Your task to perform on an android device: Open eBay Image 0: 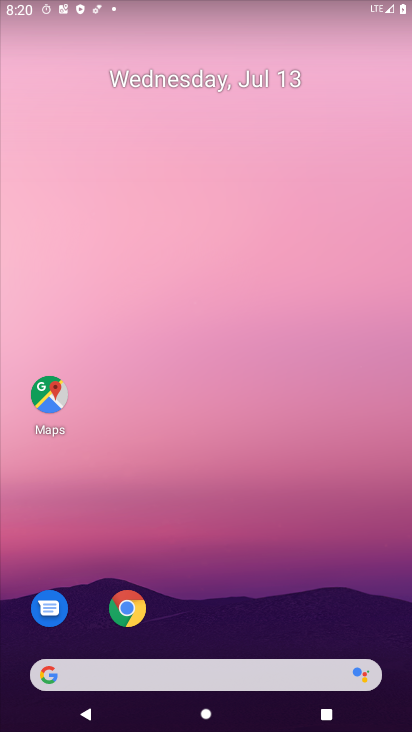
Step 0: drag from (301, 314) to (297, 28)
Your task to perform on an android device: Open eBay Image 1: 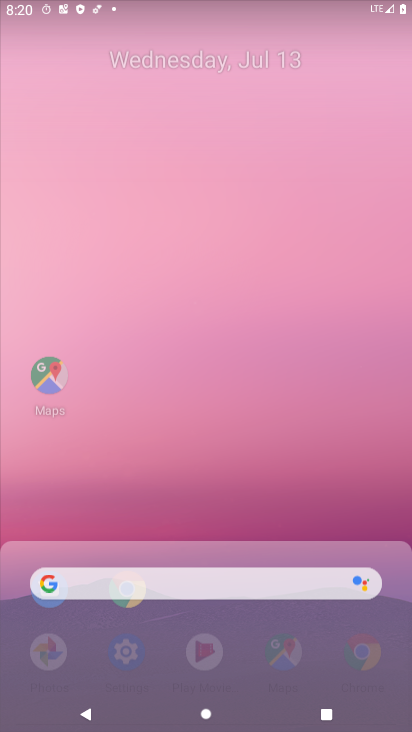
Step 1: drag from (263, 96) to (224, 184)
Your task to perform on an android device: Open eBay Image 2: 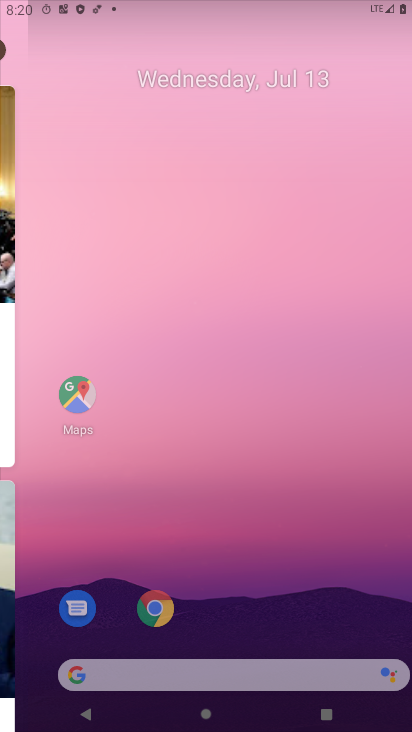
Step 2: click (219, 137)
Your task to perform on an android device: Open eBay Image 3: 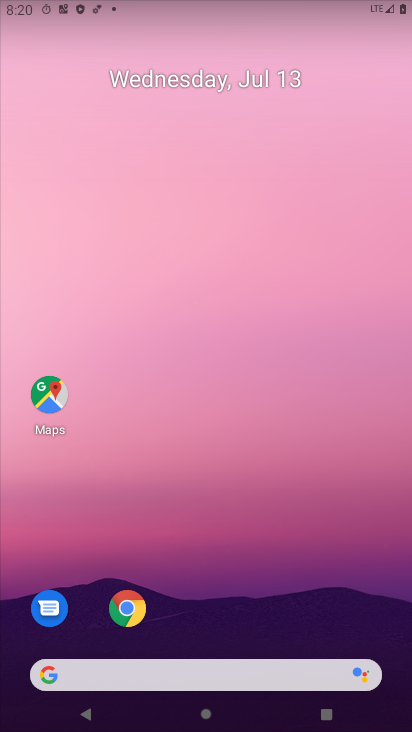
Step 3: drag from (275, 506) to (165, 1)
Your task to perform on an android device: Open eBay Image 4: 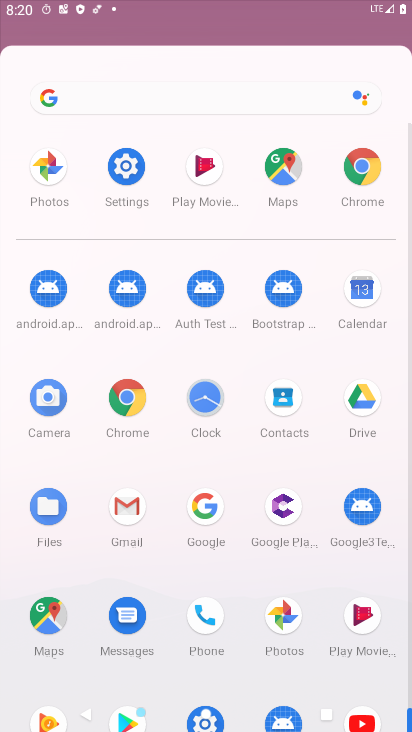
Step 4: drag from (153, 159) to (148, 103)
Your task to perform on an android device: Open eBay Image 5: 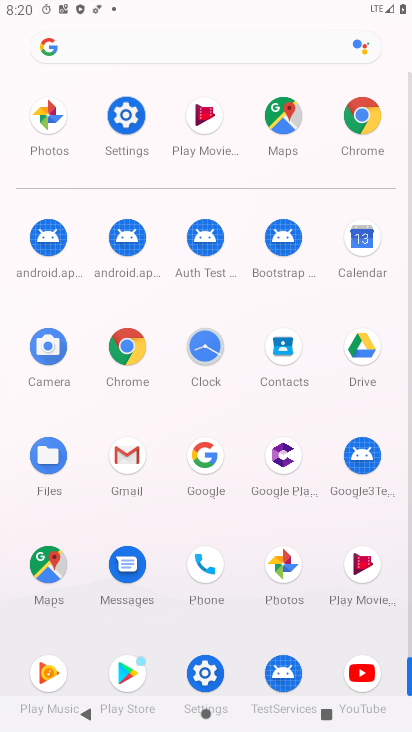
Step 5: drag from (259, 611) to (223, 15)
Your task to perform on an android device: Open eBay Image 6: 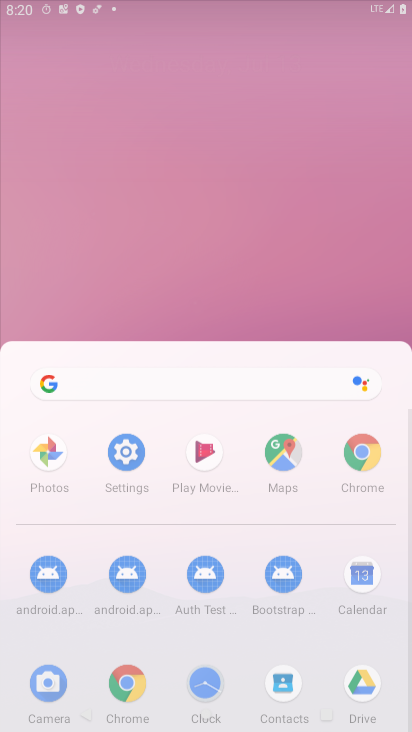
Step 6: click (358, 126)
Your task to perform on an android device: Open eBay Image 7: 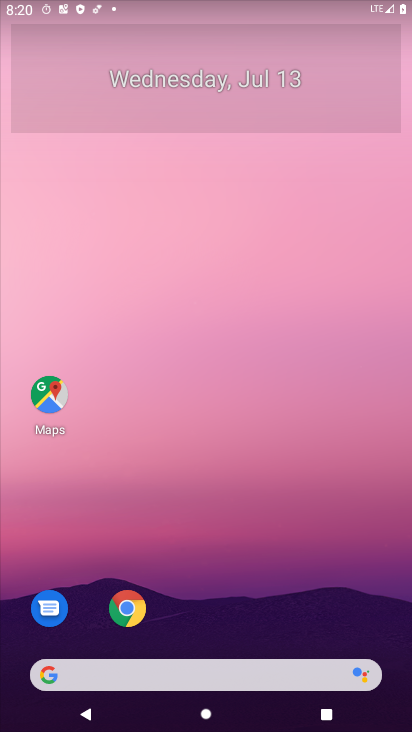
Step 7: click (358, 126)
Your task to perform on an android device: Open eBay Image 8: 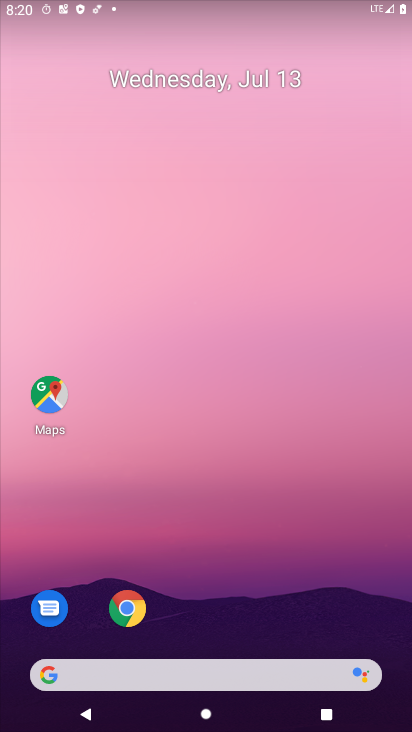
Step 8: drag from (246, 588) to (264, 14)
Your task to perform on an android device: Open eBay Image 9: 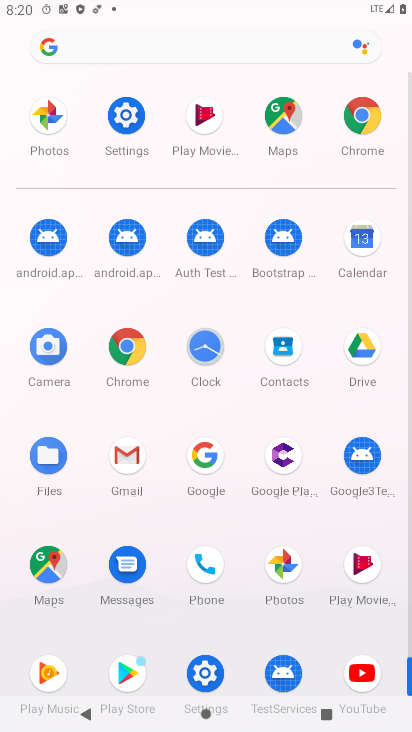
Step 9: click (162, 0)
Your task to perform on an android device: Open eBay Image 10: 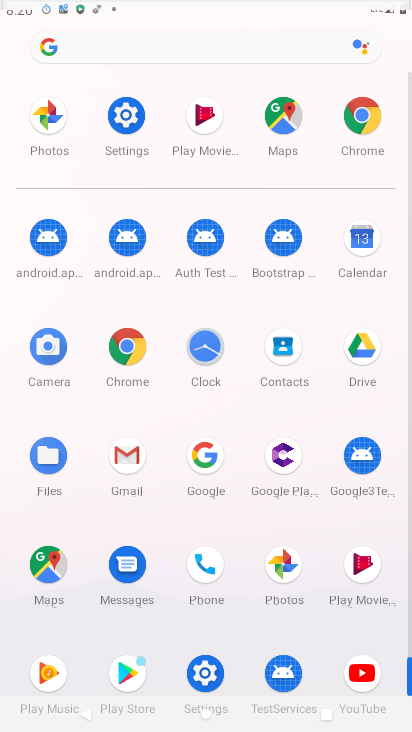
Step 10: click (363, 132)
Your task to perform on an android device: Open eBay Image 11: 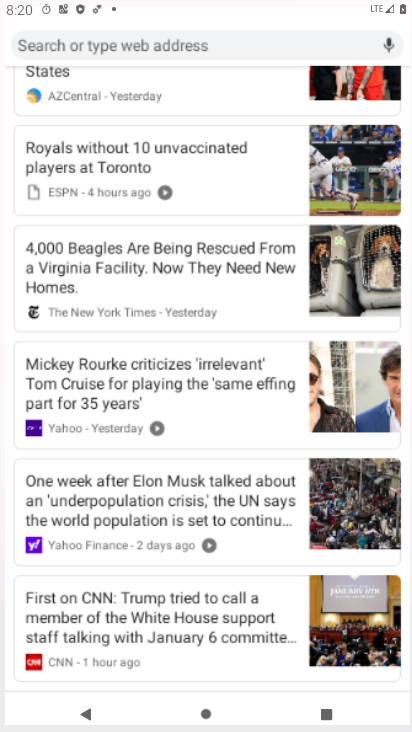
Step 11: click (361, 121)
Your task to perform on an android device: Open eBay Image 12: 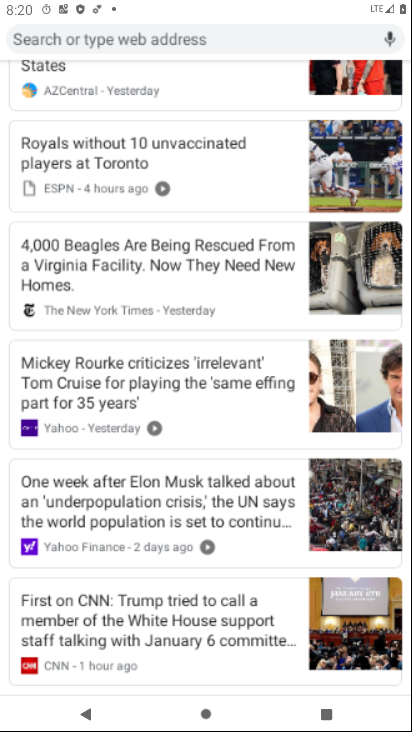
Step 12: click (361, 121)
Your task to perform on an android device: Open eBay Image 13: 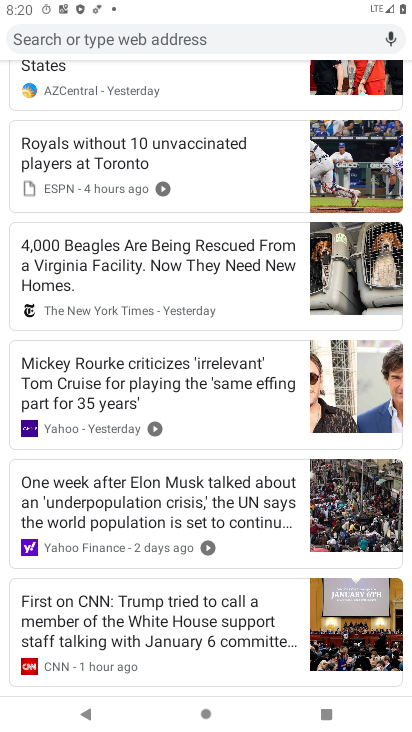
Step 13: drag from (236, 101) to (240, 451)
Your task to perform on an android device: Open eBay Image 14: 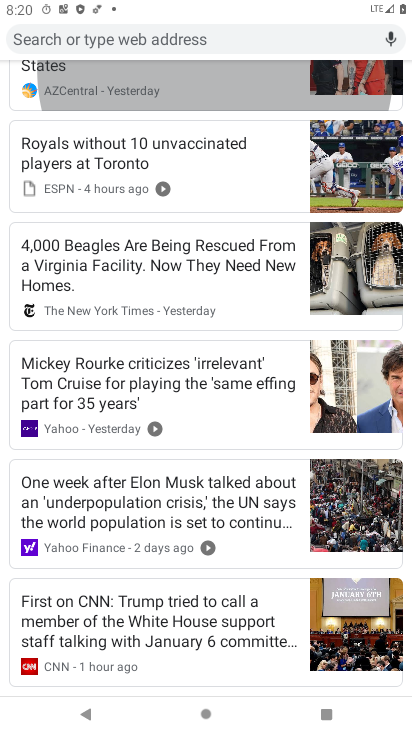
Step 14: drag from (220, 24) to (218, 338)
Your task to perform on an android device: Open eBay Image 15: 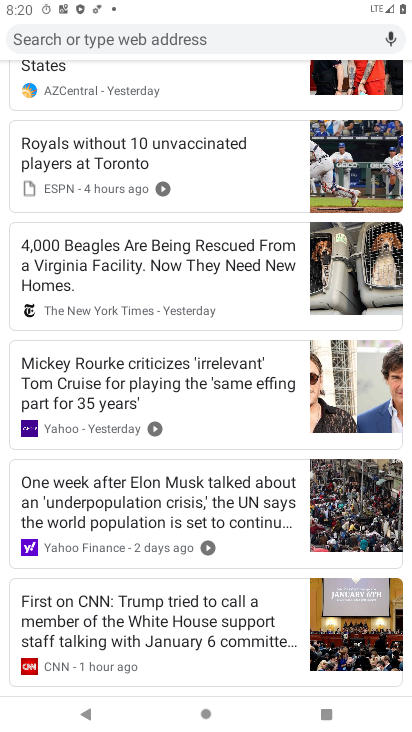
Step 15: drag from (195, 124) to (232, 548)
Your task to perform on an android device: Open eBay Image 16: 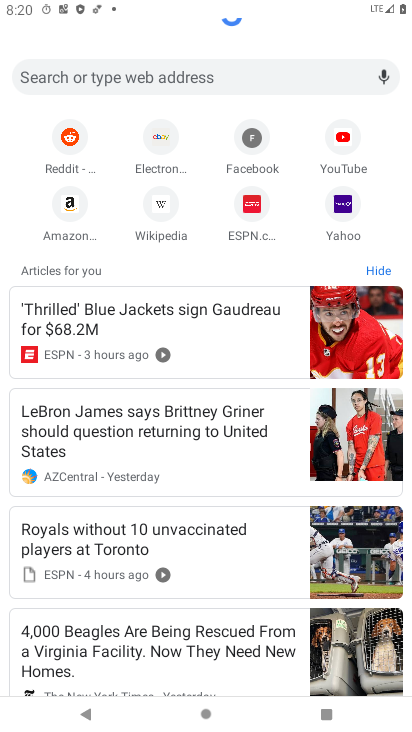
Step 16: drag from (173, 297) to (222, 467)
Your task to perform on an android device: Open eBay Image 17: 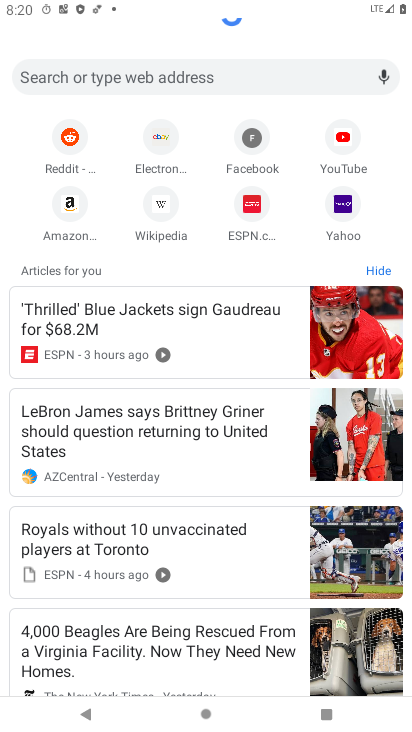
Step 17: drag from (141, 151) to (190, 542)
Your task to perform on an android device: Open eBay Image 18: 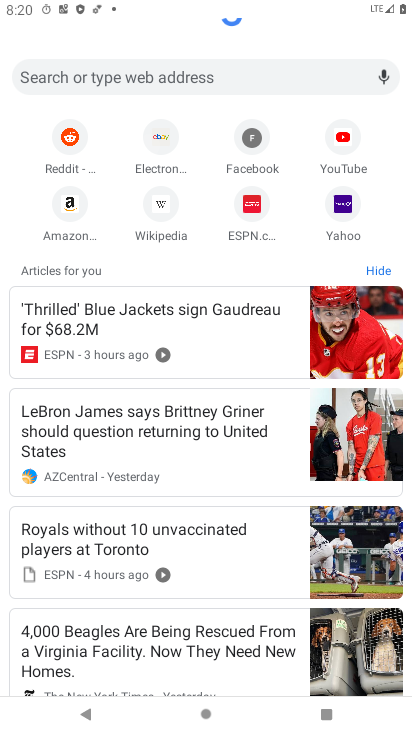
Step 18: drag from (168, 145) to (270, 634)
Your task to perform on an android device: Open eBay Image 19: 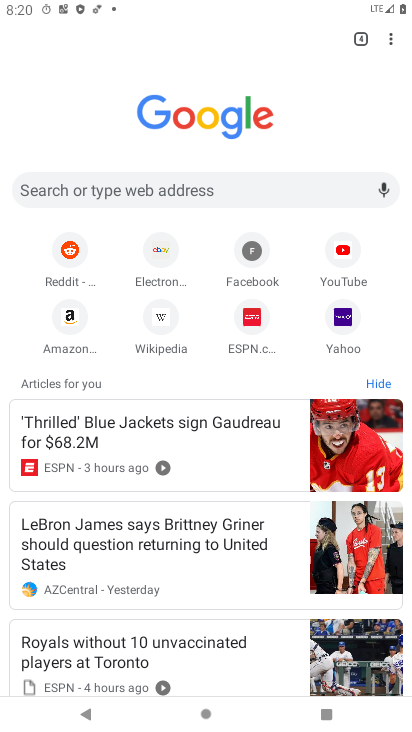
Step 19: click (152, 251)
Your task to perform on an android device: Open eBay Image 20: 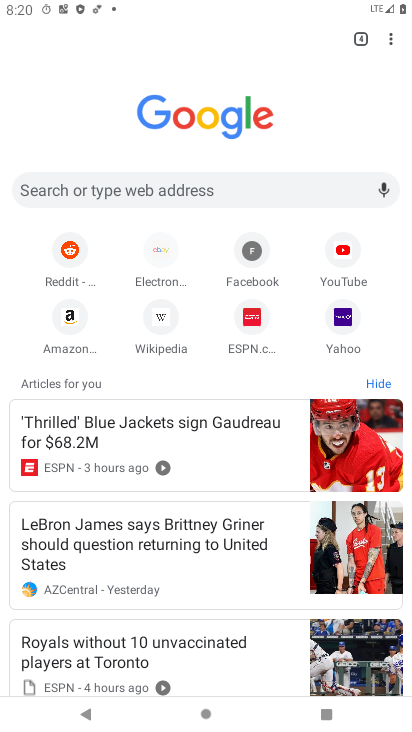
Step 20: click (153, 250)
Your task to perform on an android device: Open eBay Image 21: 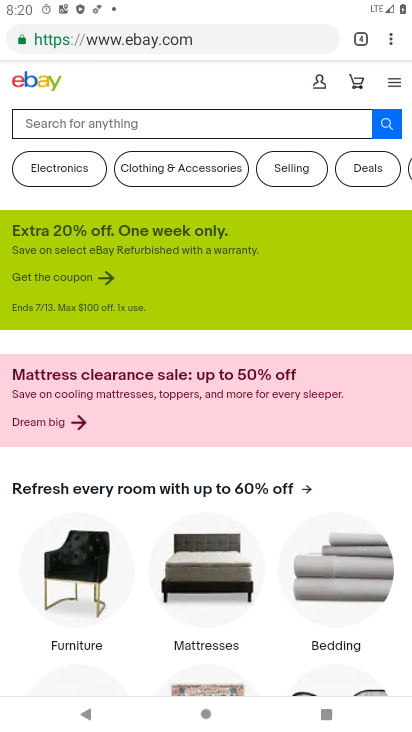
Step 21: task complete